Your task to perform on an android device: open device folders in google photos Image 0: 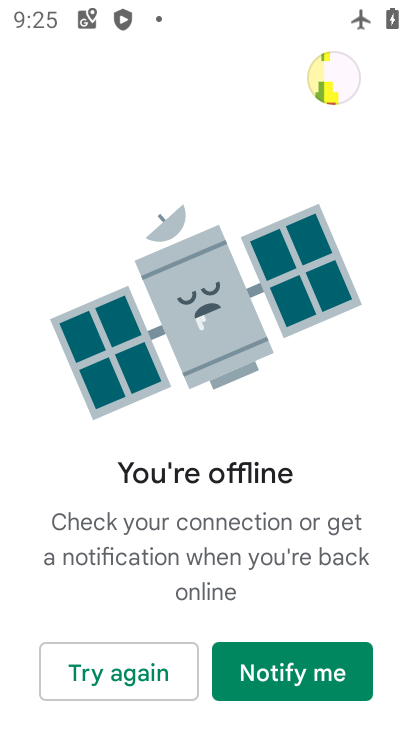
Step 0: press home button
Your task to perform on an android device: open device folders in google photos Image 1: 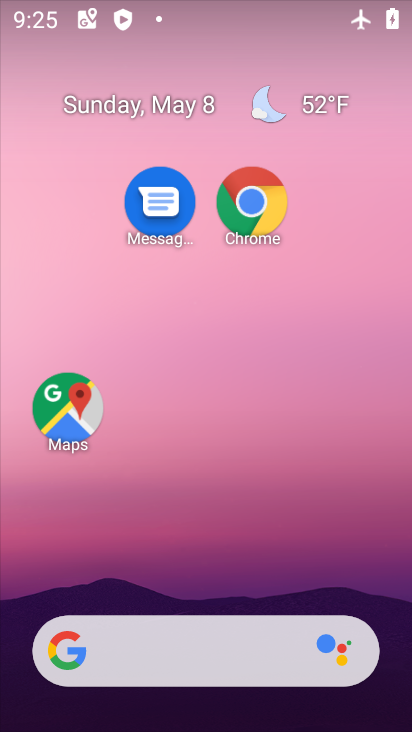
Step 1: drag from (241, 603) to (395, 41)
Your task to perform on an android device: open device folders in google photos Image 2: 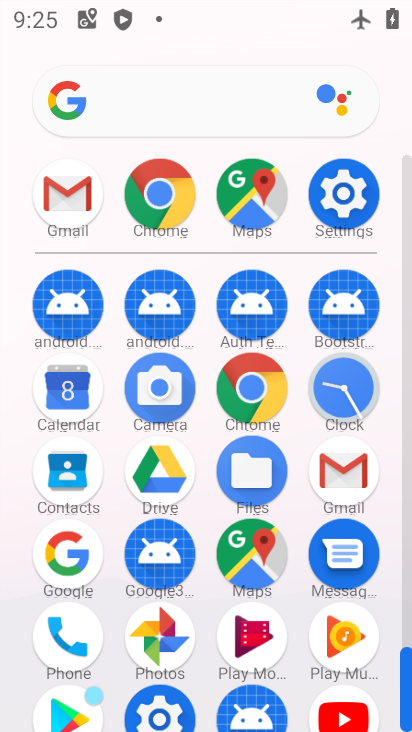
Step 2: click (160, 632)
Your task to perform on an android device: open device folders in google photos Image 3: 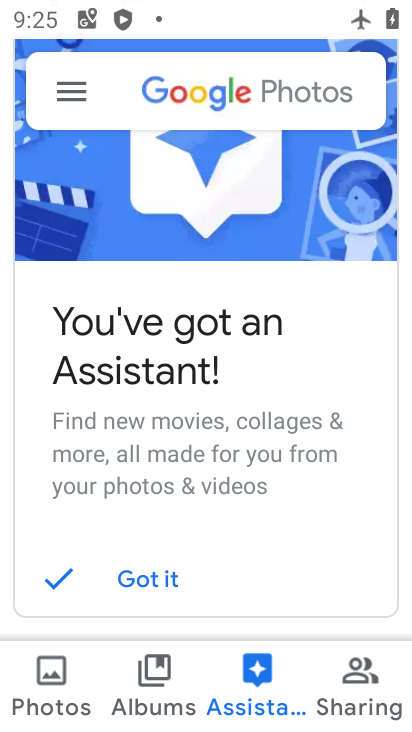
Step 3: click (68, 80)
Your task to perform on an android device: open device folders in google photos Image 4: 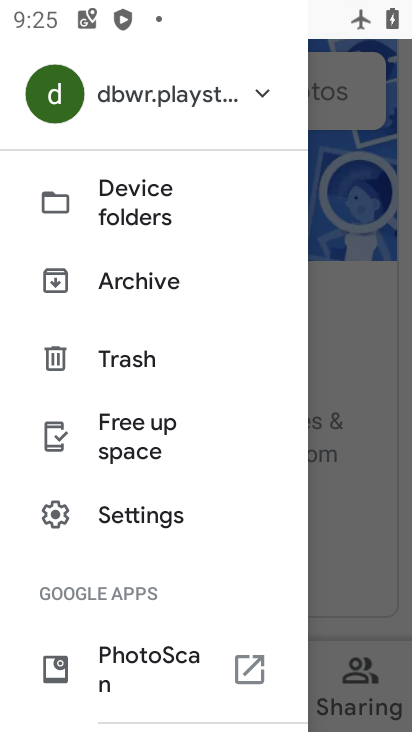
Step 4: click (148, 233)
Your task to perform on an android device: open device folders in google photos Image 5: 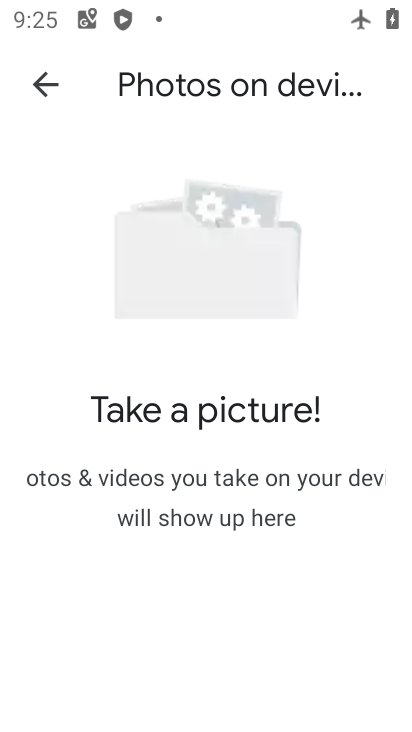
Step 5: task complete